Your task to perform on an android device: Open Google Chrome and open the bookmarks view Image 0: 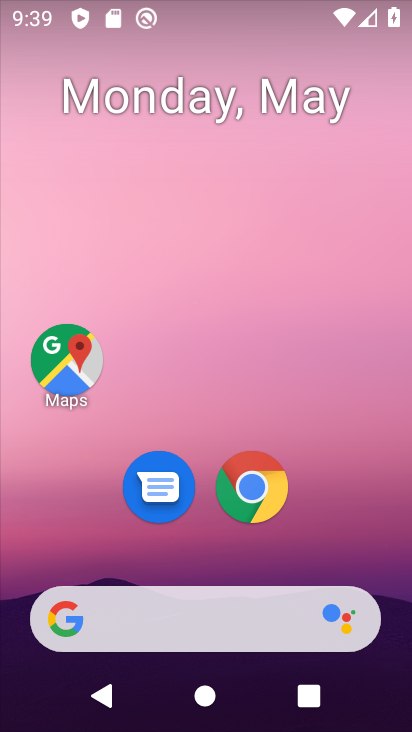
Step 0: click (253, 482)
Your task to perform on an android device: Open Google Chrome and open the bookmarks view Image 1: 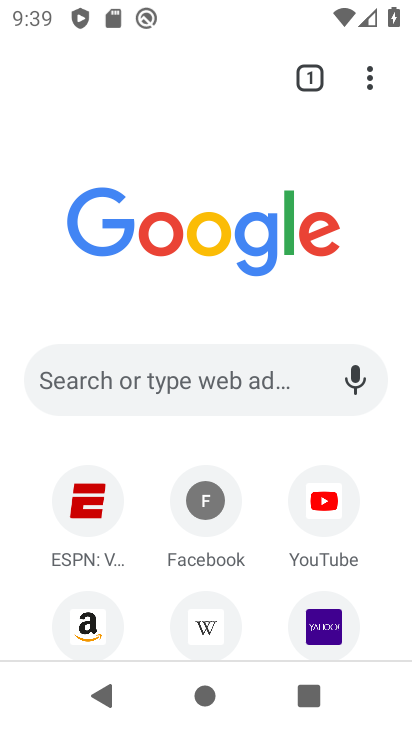
Step 1: click (364, 75)
Your task to perform on an android device: Open Google Chrome and open the bookmarks view Image 2: 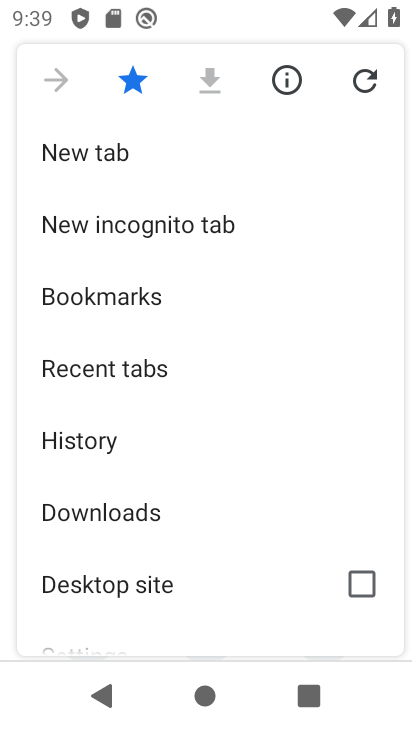
Step 2: click (161, 301)
Your task to perform on an android device: Open Google Chrome and open the bookmarks view Image 3: 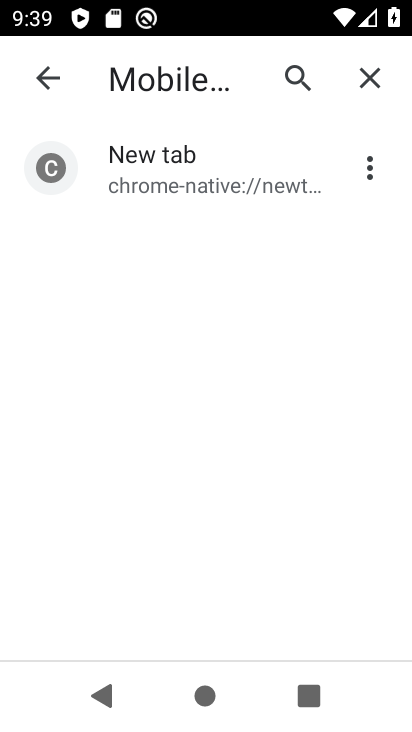
Step 3: task complete